Your task to perform on an android device: What is the news today? Image 0: 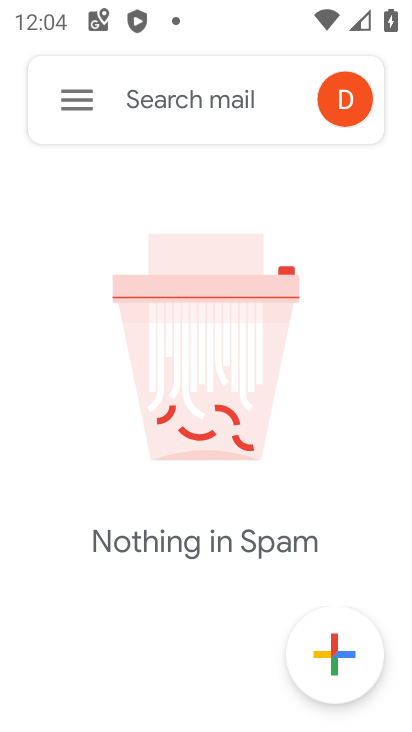
Step 0: press home button
Your task to perform on an android device: What is the news today? Image 1: 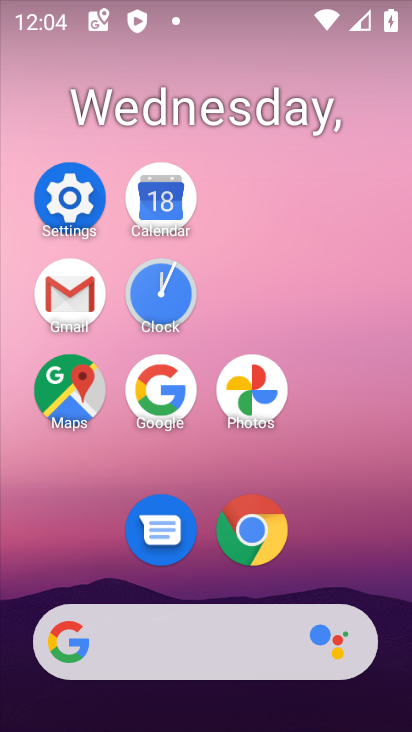
Step 1: click (147, 390)
Your task to perform on an android device: What is the news today? Image 2: 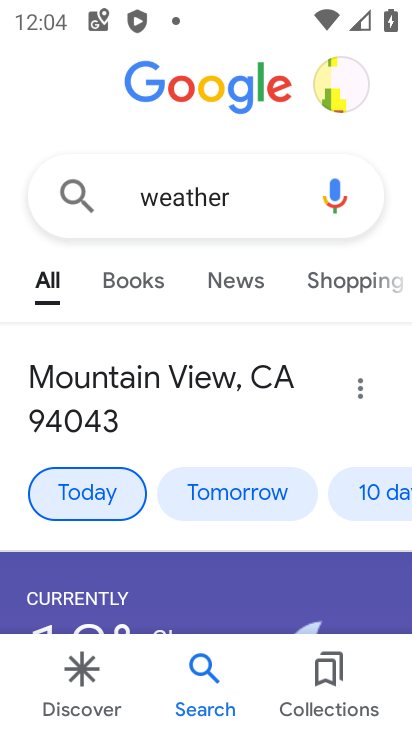
Step 2: click (246, 205)
Your task to perform on an android device: What is the news today? Image 3: 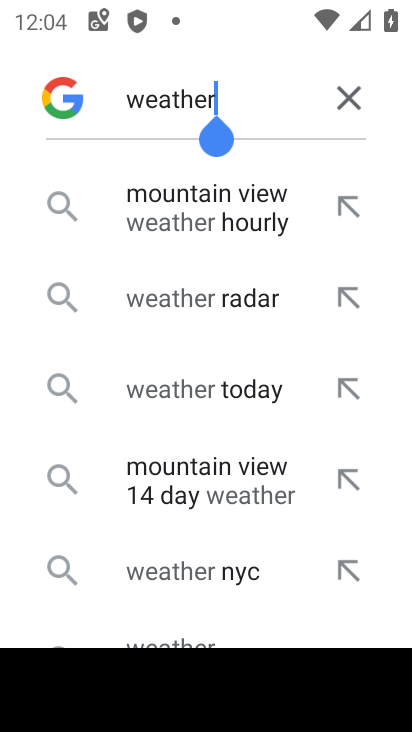
Step 3: click (359, 92)
Your task to perform on an android device: What is the news today? Image 4: 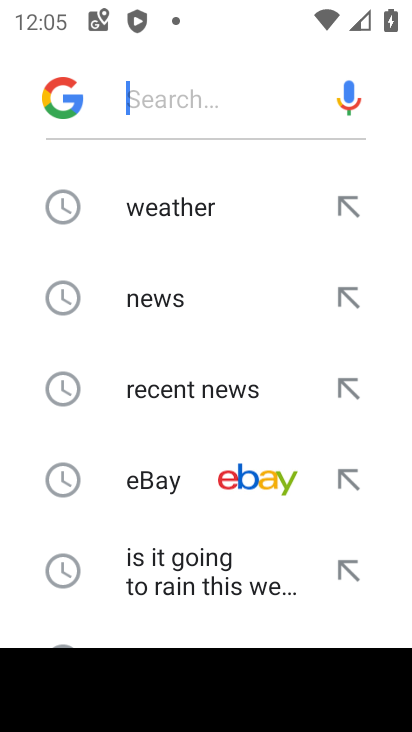
Step 4: click (171, 284)
Your task to perform on an android device: What is the news today? Image 5: 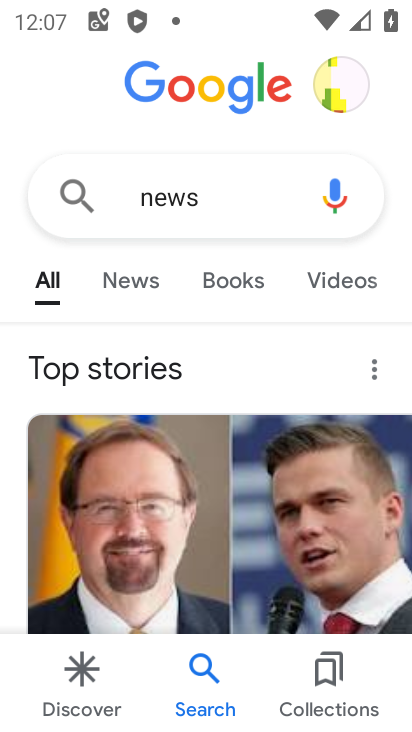
Step 5: task complete